Your task to perform on an android device: Go to battery settings Image 0: 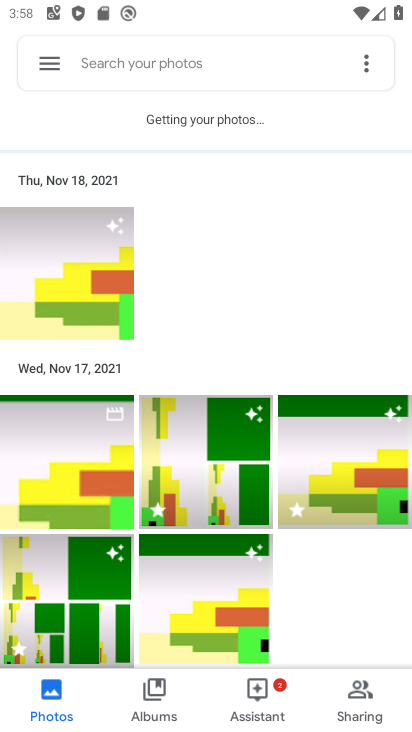
Step 0: press home button
Your task to perform on an android device: Go to battery settings Image 1: 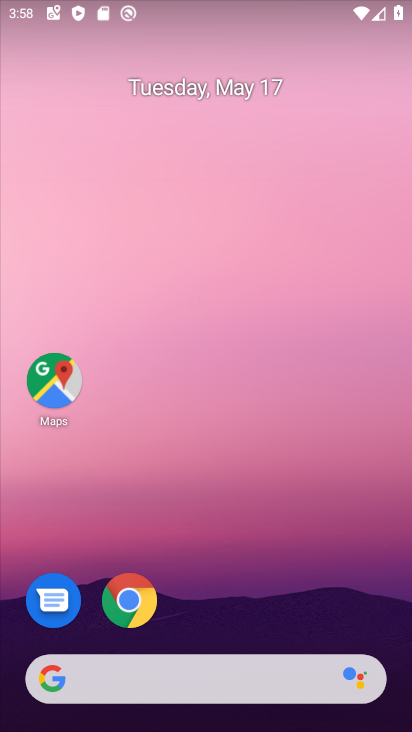
Step 1: drag from (204, 611) to (236, 161)
Your task to perform on an android device: Go to battery settings Image 2: 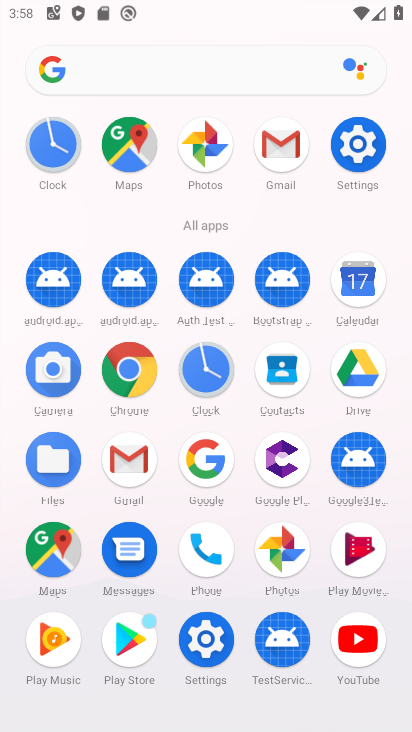
Step 2: click (359, 168)
Your task to perform on an android device: Go to battery settings Image 3: 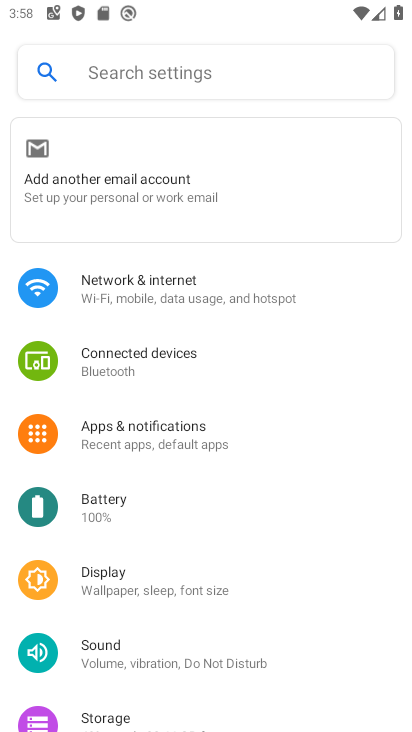
Step 3: click (154, 511)
Your task to perform on an android device: Go to battery settings Image 4: 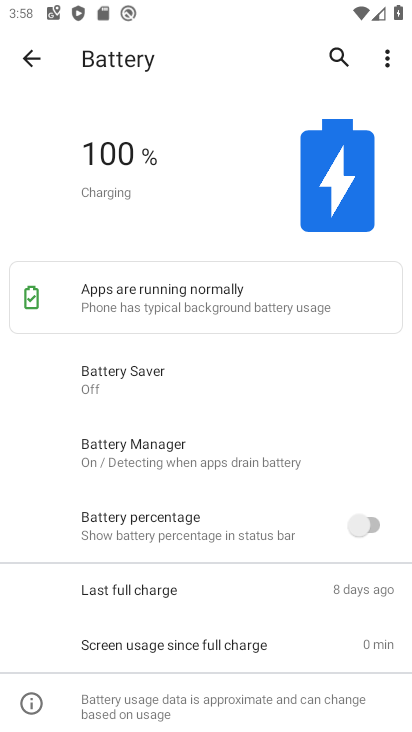
Step 4: task complete